Your task to perform on an android device: turn on the 12-hour format for clock Image 0: 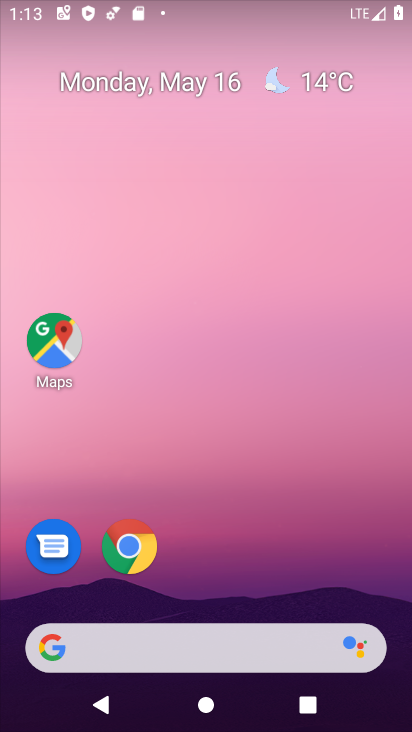
Step 0: drag from (284, 675) to (175, 278)
Your task to perform on an android device: turn on the 12-hour format for clock Image 1: 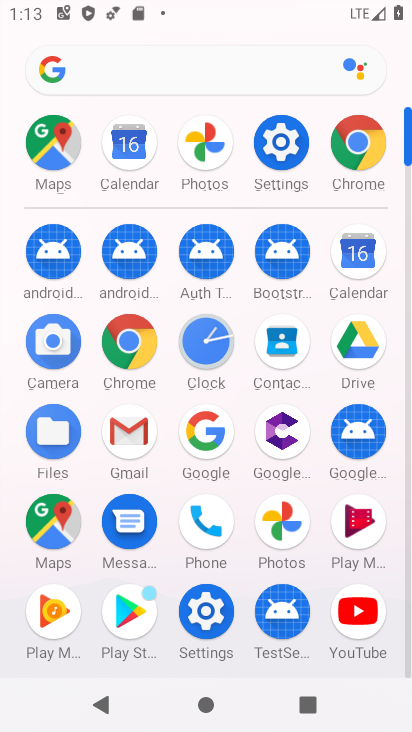
Step 1: click (203, 335)
Your task to perform on an android device: turn on the 12-hour format for clock Image 2: 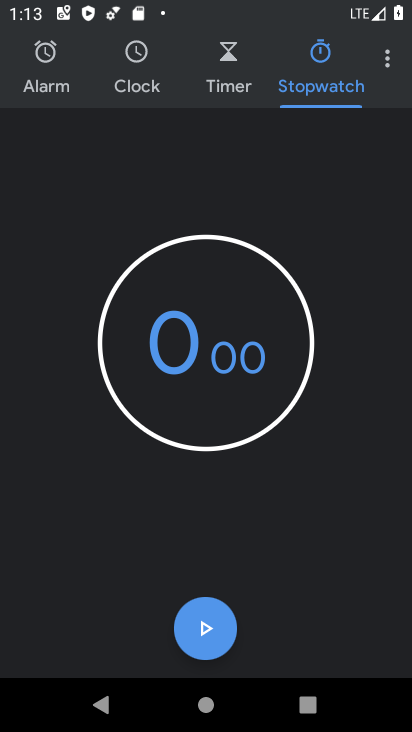
Step 2: click (388, 65)
Your task to perform on an android device: turn on the 12-hour format for clock Image 3: 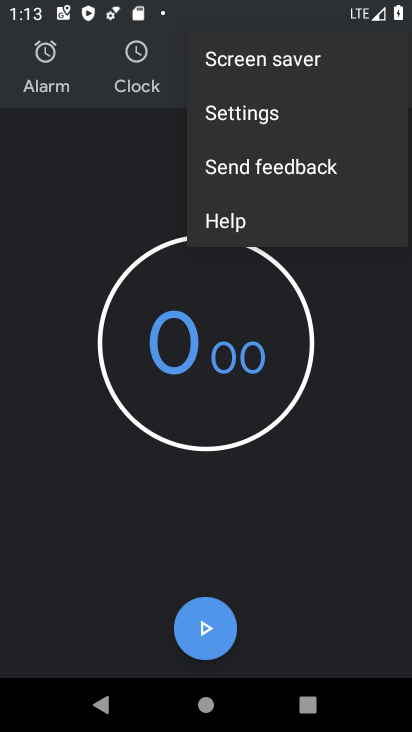
Step 3: click (257, 109)
Your task to perform on an android device: turn on the 12-hour format for clock Image 4: 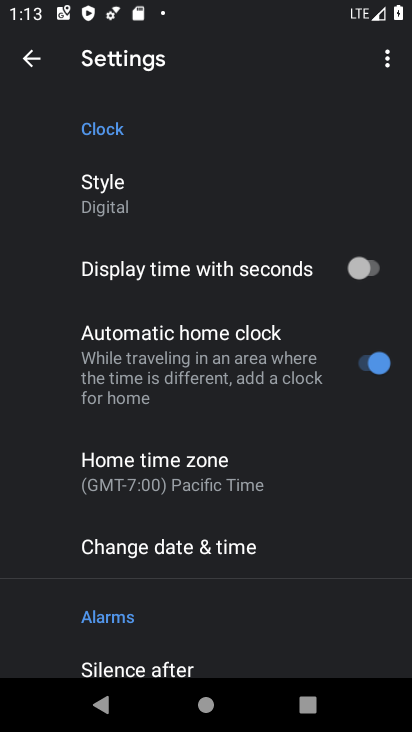
Step 4: click (215, 541)
Your task to perform on an android device: turn on the 12-hour format for clock Image 5: 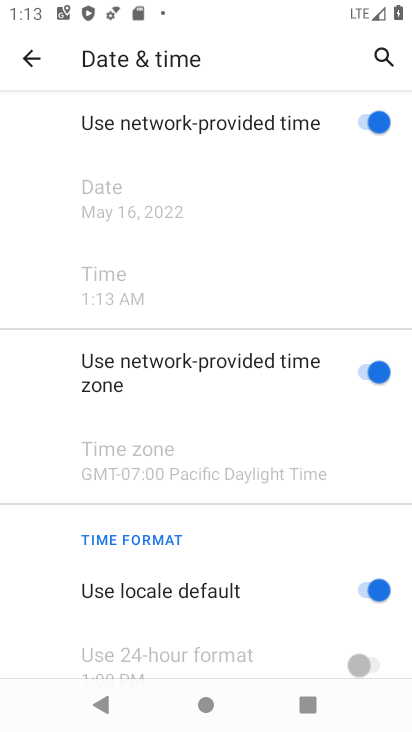
Step 5: click (369, 581)
Your task to perform on an android device: turn on the 12-hour format for clock Image 6: 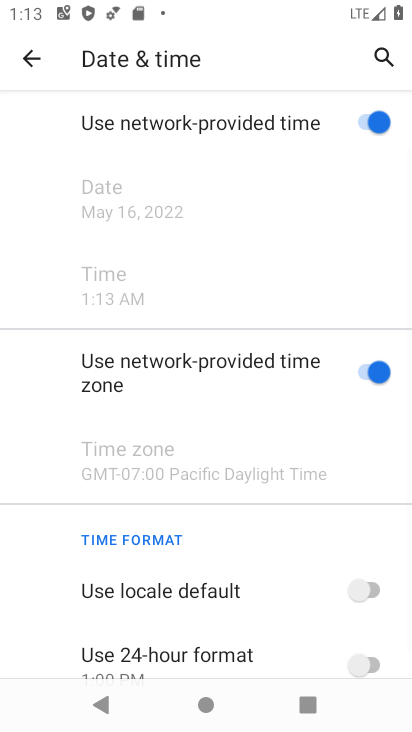
Step 6: click (367, 663)
Your task to perform on an android device: turn on the 12-hour format for clock Image 7: 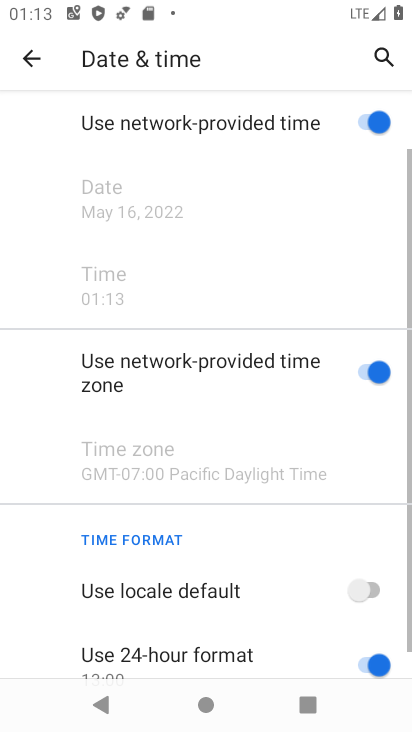
Step 7: click (363, 655)
Your task to perform on an android device: turn on the 12-hour format for clock Image 8: 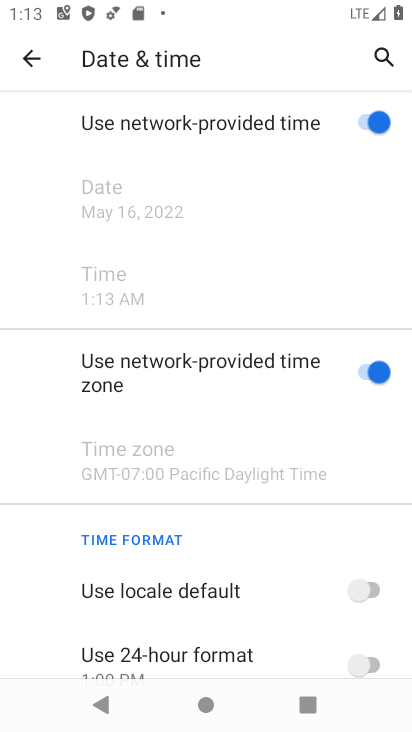
Step 8: task complete